Your task to perform on an android device: Open sound settings Image 0: 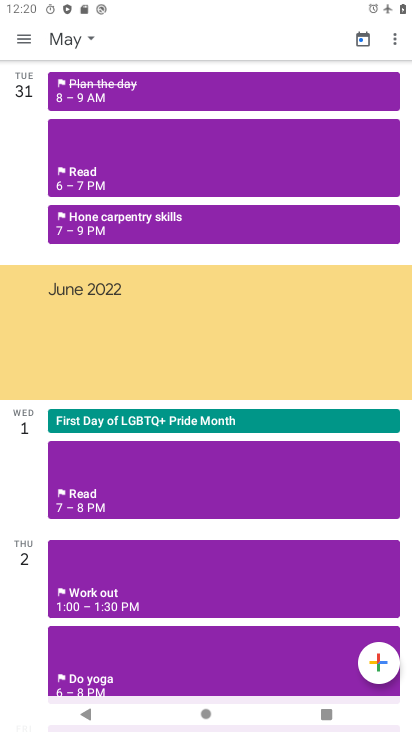
Step 0: press home button
Your task to perform on an android device: Open sound settings Image 1: 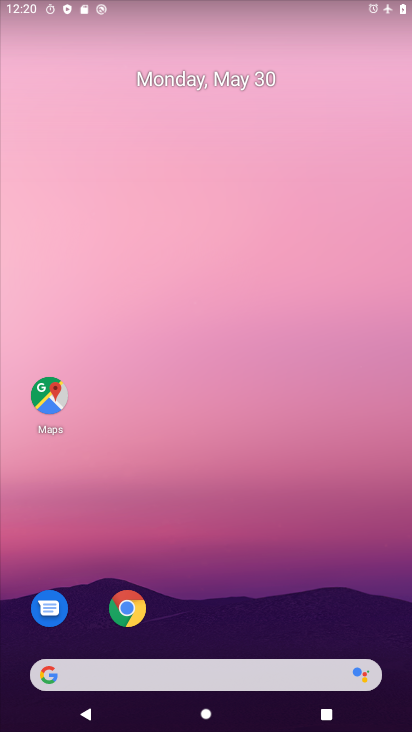
Step 1: drag from (214, 658) to (127, 79)
Your task to perform on an android device: Open sound settings Image 2: 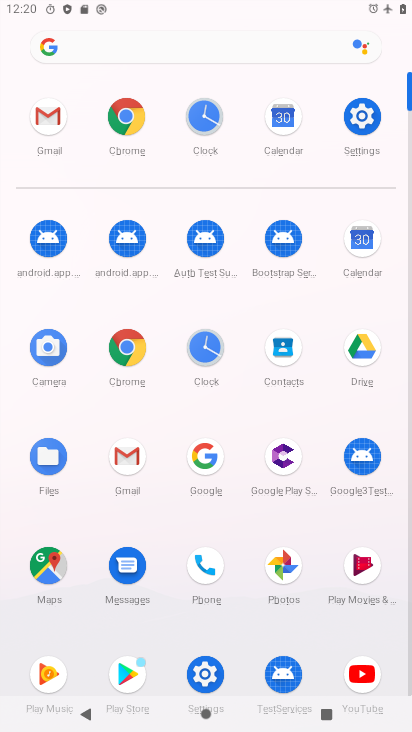
Step 2: click (359, 114)
Your task to perform on an android device: Open sound settings Image 3: 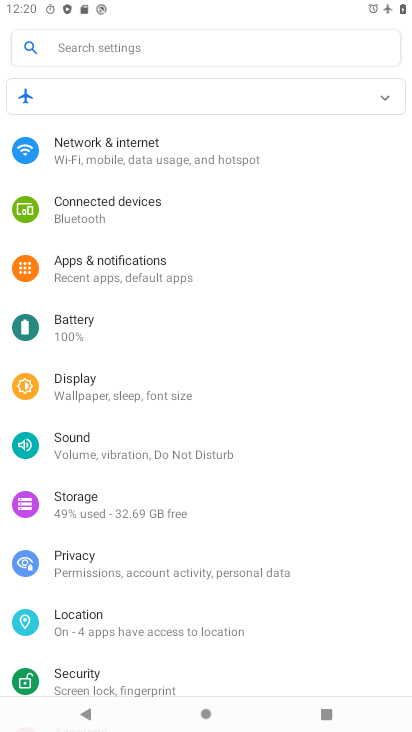
Step 3: click (76, 436)
Your task to perform on an android device: Open sound settings Image 4: 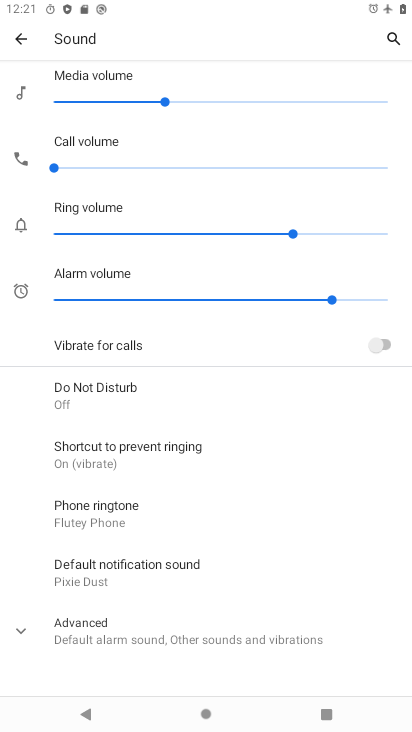
Step 4: task complete